Your task to perform on an android device: toggle notification dots Image 0: 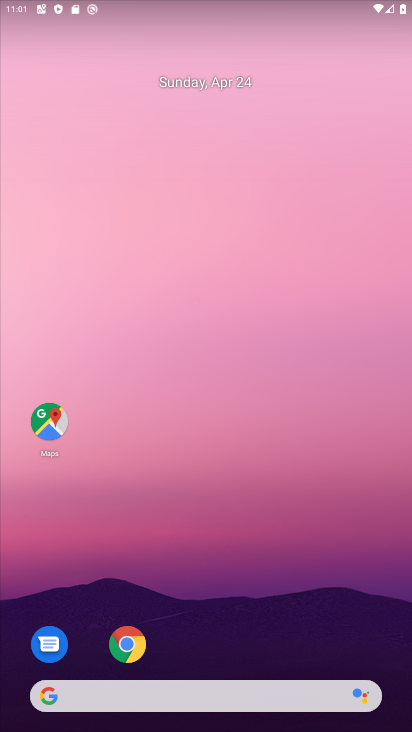
Step 0: drag from (333, 456) to (327, 81)
Your task to perform on an android device: toggle notification dots Image 1: 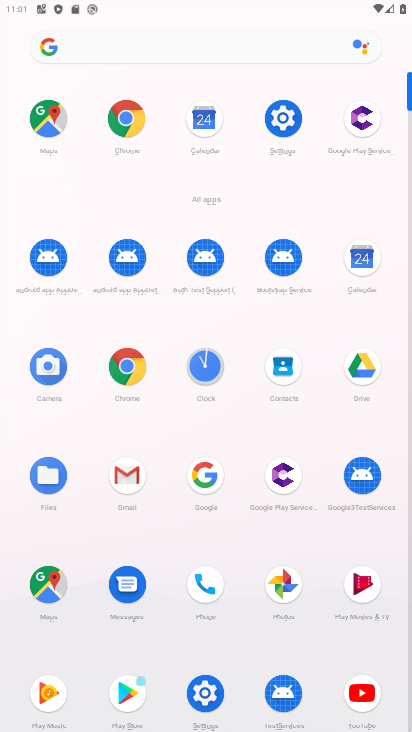
Step 1: click (282, 121)
Your task to perform on an android device: toggle notification dots Image 2: 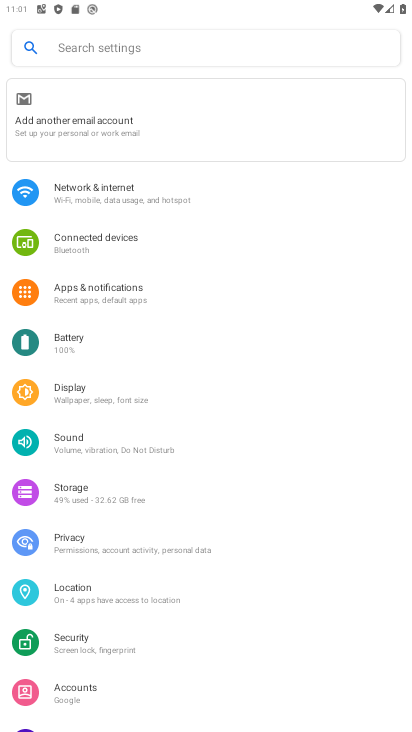
Step 2: click (115, 293)
Your task to perform on an android device: toggle notification dots Image 3: 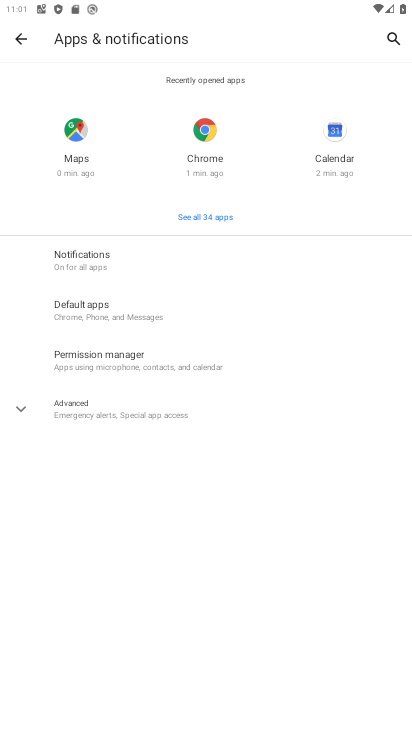
Step 3: click (87, 268)
Your task to perform on an android device: toggle notification dots Image 4: 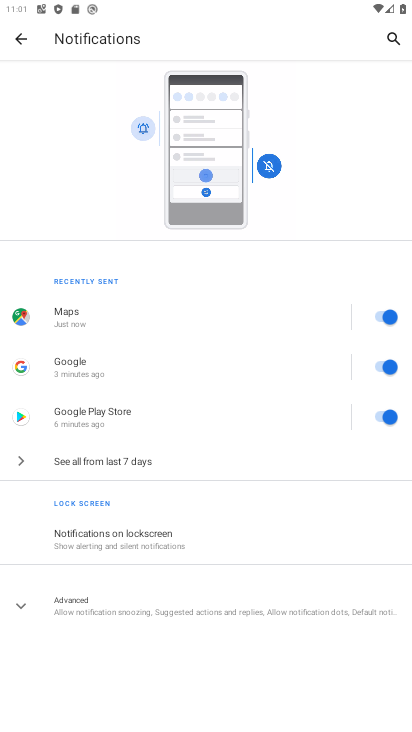
Step 4: click (14, 616)
Your task to perform on an android device: toggle notification dots Image 5: 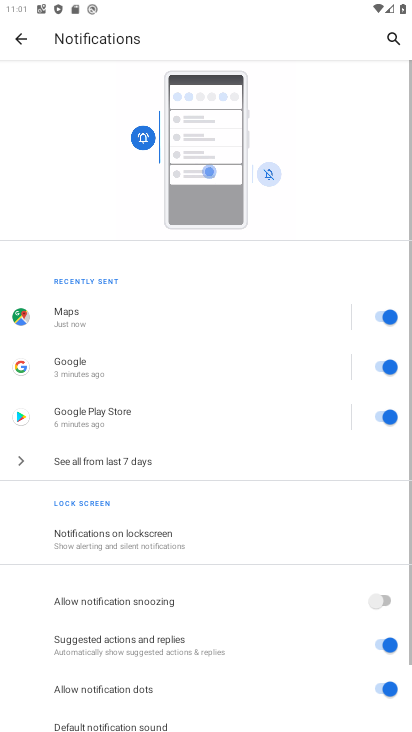
Step 5: drag from (135, 547) to (147, 411)
Your task to perform on an android device: toggle notification dots Image 6: 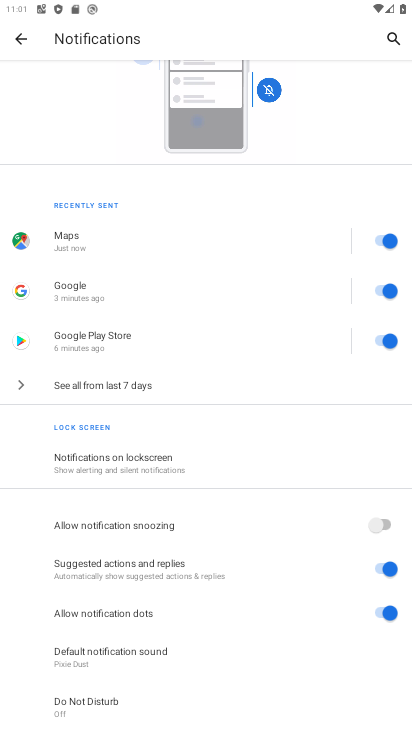
Step 6: click (380, 614)
Your task to perform on an android device: toggle notification dots Image 7: 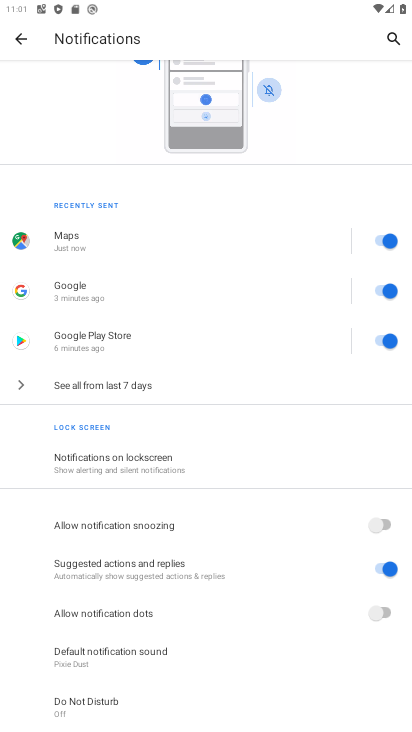
Step 7: task complete